Your task to perform on an android device: turn on sleep mode Image 0: 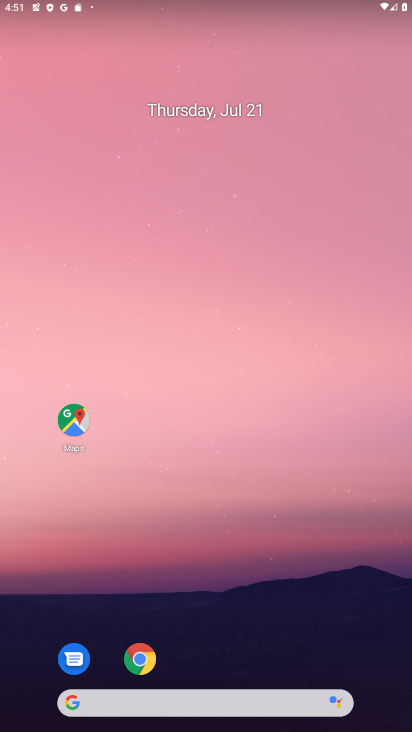
Step 0: drag from (251, 589) to (218, 85)
Your task to perform on an android device: turn on sleep mode Image 1: 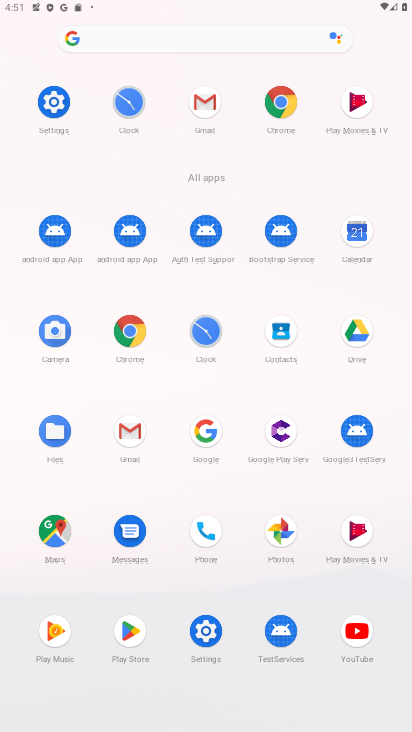
Step 1: click (52, 105)
Your task to perform on an android device: turn on sleep mode Image 2: 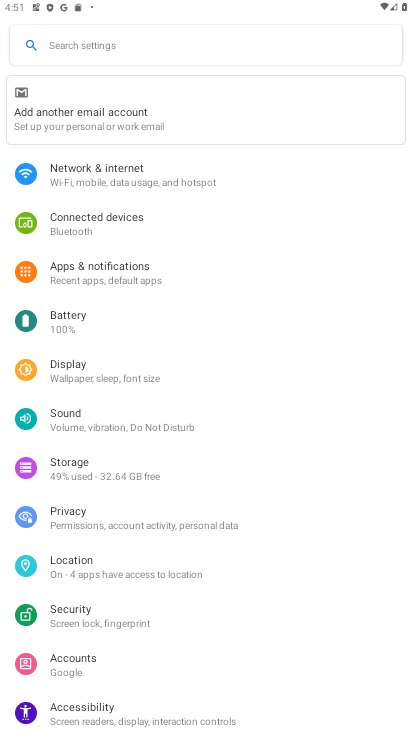
Step 2: click (68, 379)
Your task to perform on an android device: turn on sleep mode Image 3: 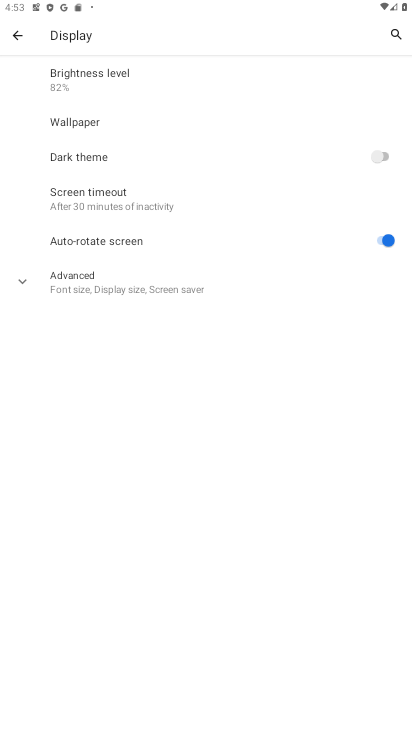
Step 3: task complete